Your task to perform on an android device: Go to Google Image 0: 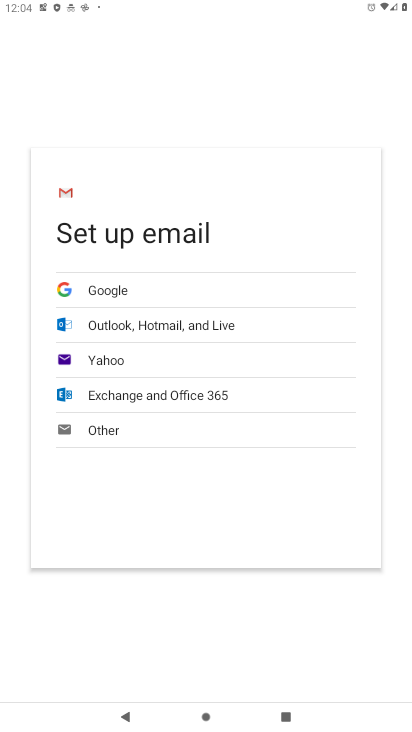
Step 0: press home button
Your task to perform on an android device: Go to Google Image 1: 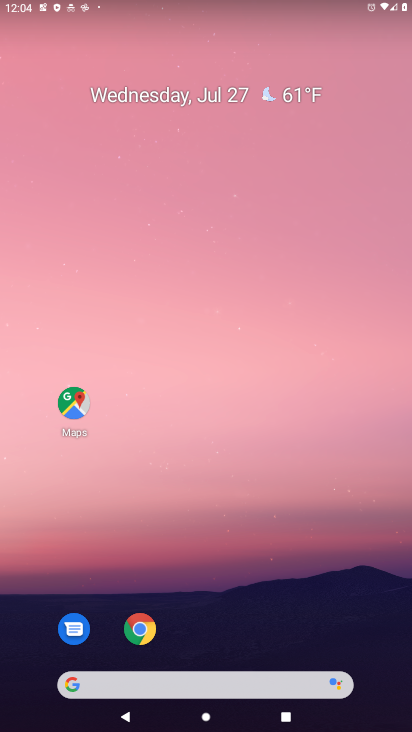
Step 1: click (231, 685)
Your task to perform on an android device: Go to Google Image 2: 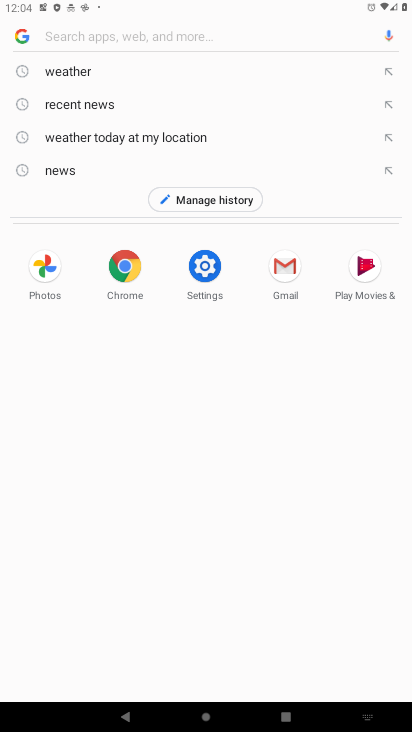
Step 2: type "google.com"
Your task to perform on an android device: Go to Google Image 3: 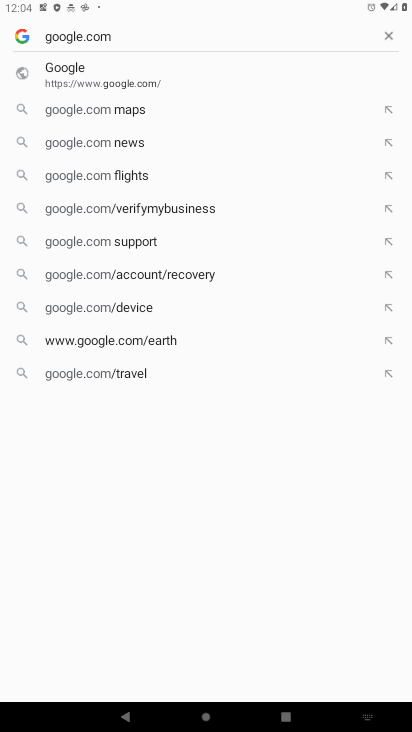
Step 3: click (129, 70)
Your task to perform on an android device: Go to Google Image 4: 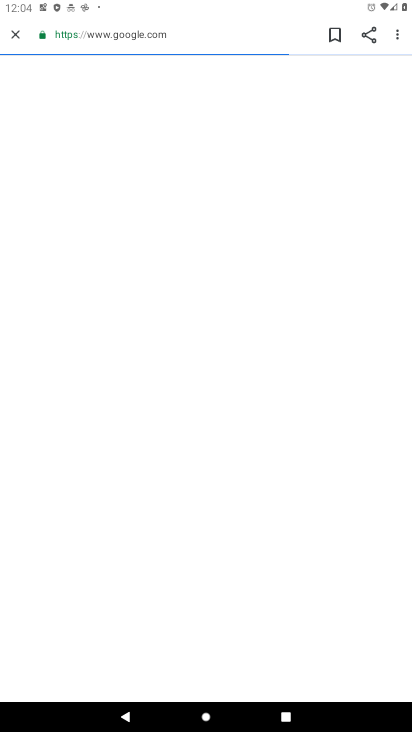
Step 4: task complete